Your task to perform on an android device: Search for vegetarian restaurants on Maps Image 0: 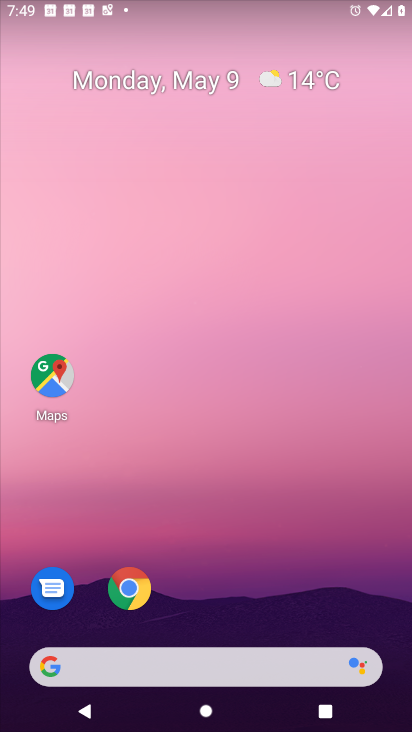
Step 0: drag from (351, 595) to (319, 69)
Your task to perform on an android device: Search for vegetarian restaurants on Maps Image 1: 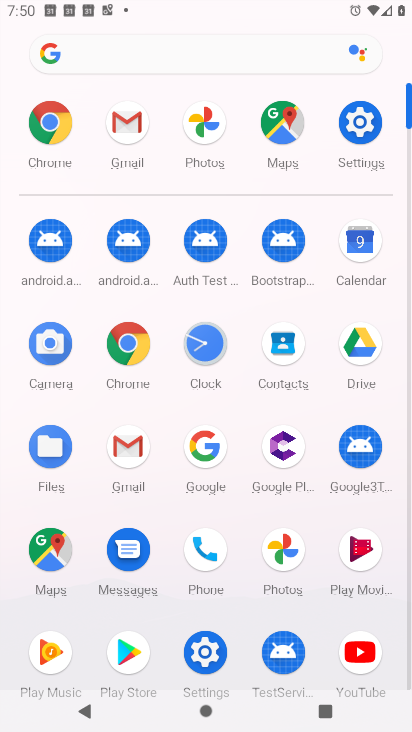
Step 1: click (56, 553)
Your task to perform on an android device: Search for vegetarian restaurants on Maps Image 2: 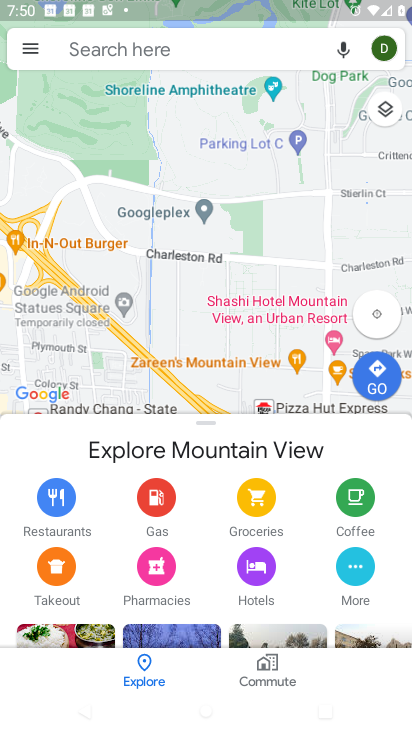
Step 2: click (140, 40)
Your task to perform on an android device: Search for vegetarian restaurants on Maps Image 3: 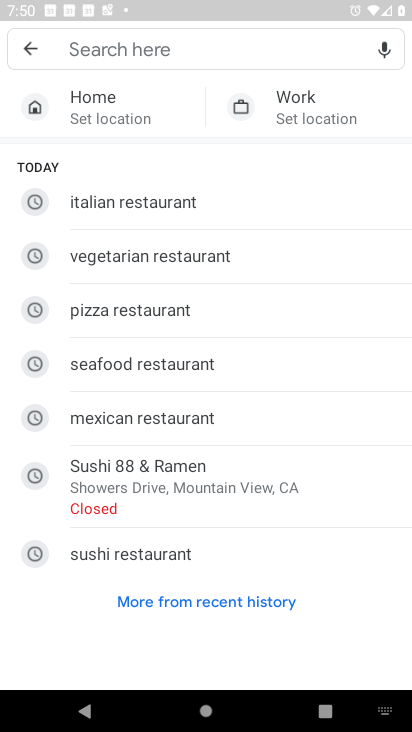
Step 3: click (187, 251)
Your task to perform on an android device: Search for vegetarian restaurants on Maps Image 4: 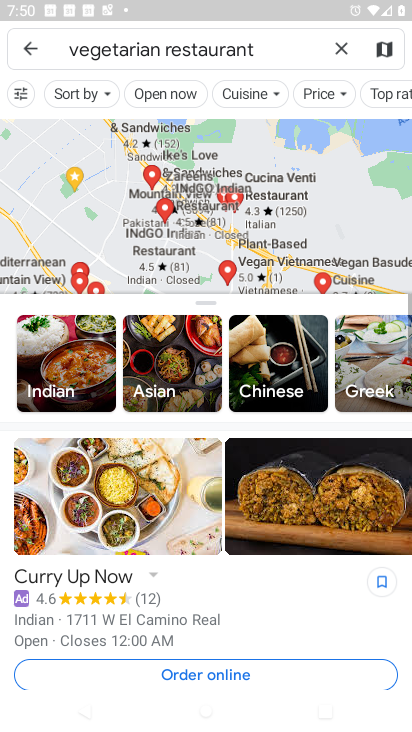
Step 4: task complete